Your task to perform on an android device: change the clock style Image 0: 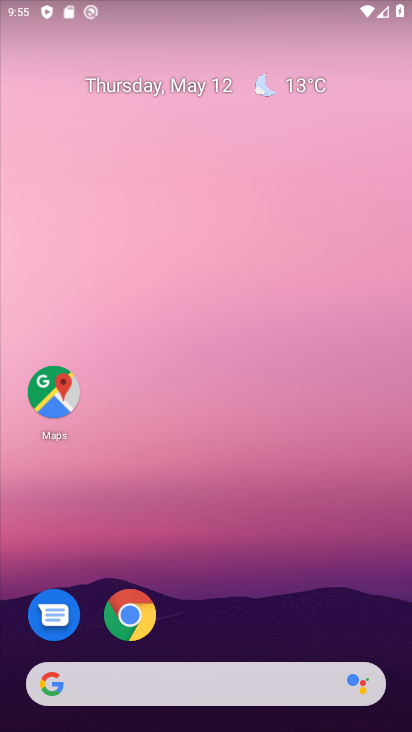
Step 0: drag from (303, 582) to (306, 0)
Your task to perform on an android device: change the clock style Image 1: 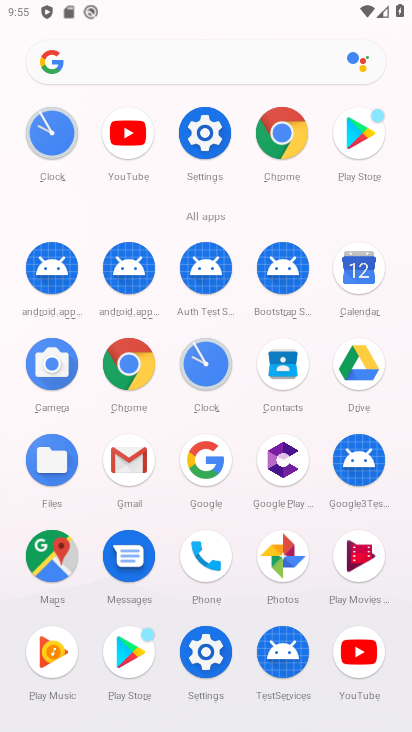
Step 1: click (47, 176)
Your task to perform on an android device: change the clock style Image 2: 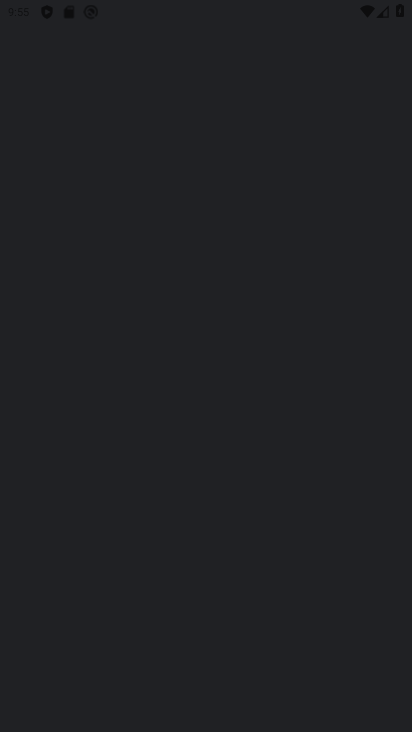
Step 2: click (53, 153)
Your task to perform on an android device: change the clock style Image 3: 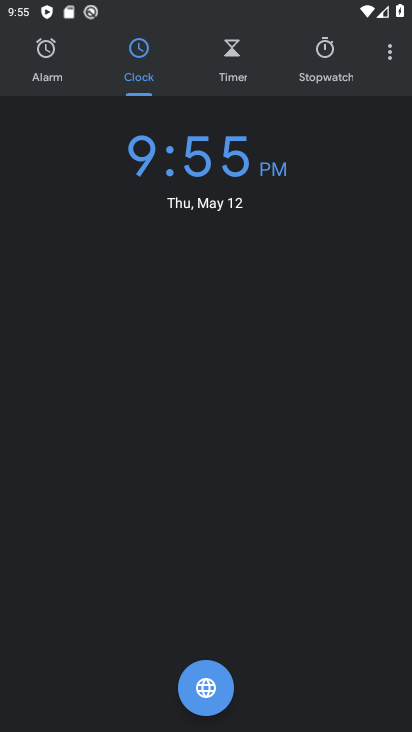
Step 3: click (389, 55)
Your task to perform on an android device: change the clock style Image 4: 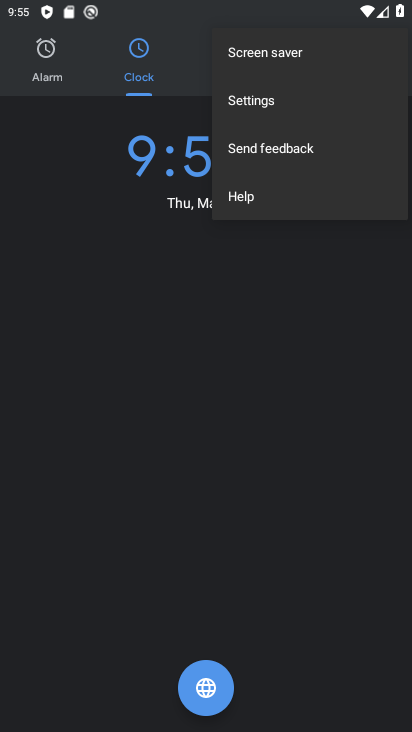
Step 4: click (270, 108)
Your task to perform on an android device: change the clock style Image 5: 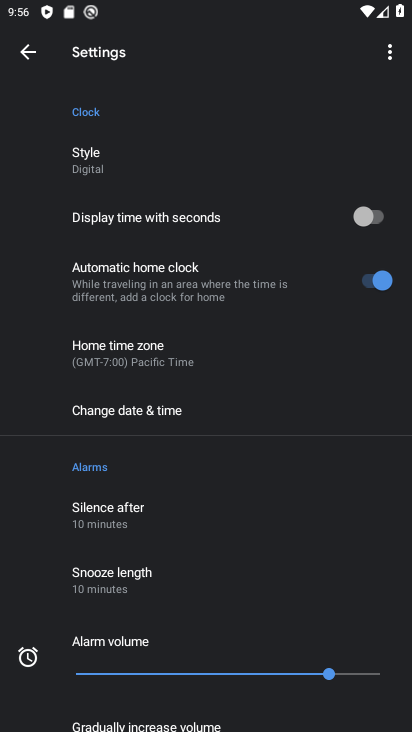
Step 5: click (91, 162)
Your task to perform on an android device: change the clock style Image 6: 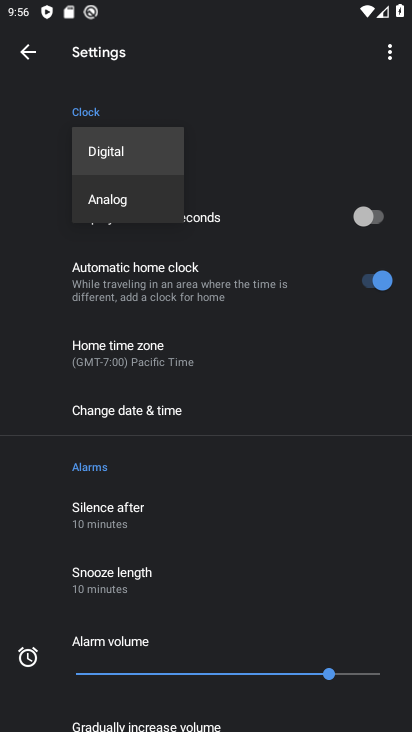
Step 6: click (97, 212)
Your task to perform on an android device: change the clock style Image 7: 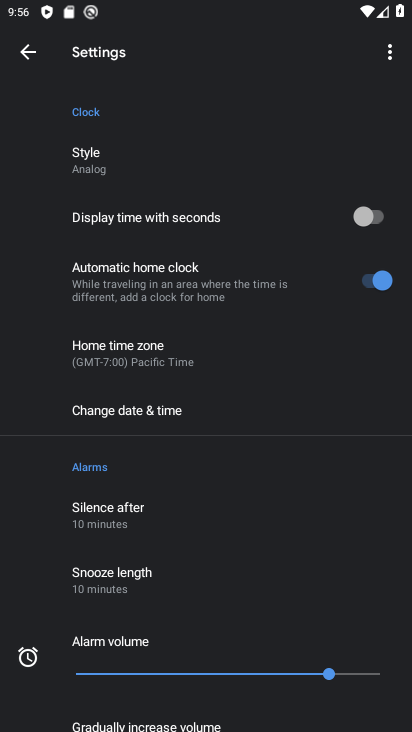
Step 7: task complete